Your task to perform on an android device: Where can I buy a nice beach bag? Image 0: 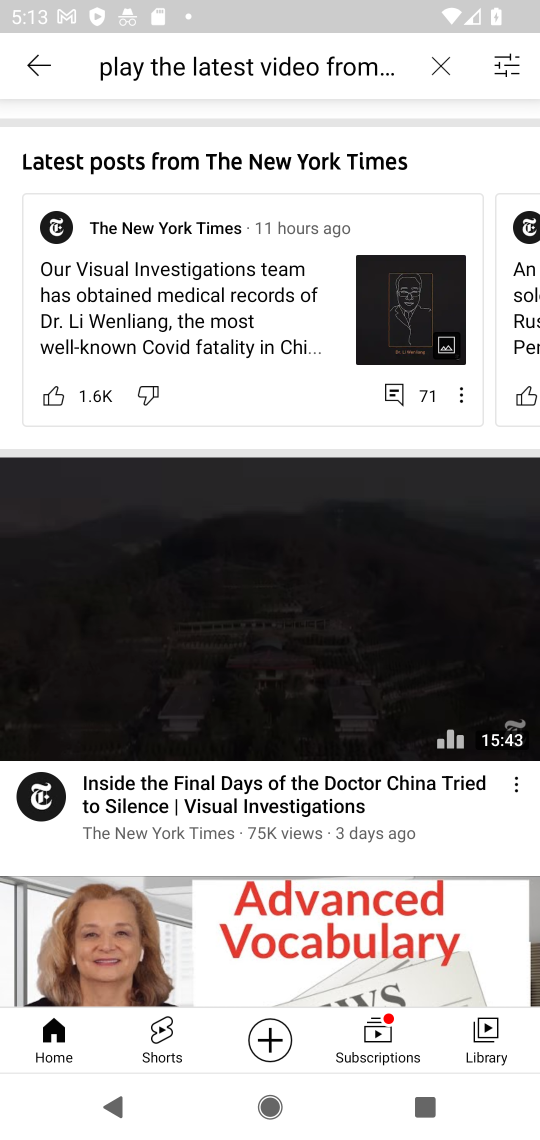
Step 0: press home button
Your task to perform on an android device: Where can I buy a nice beach bag? Image 1: 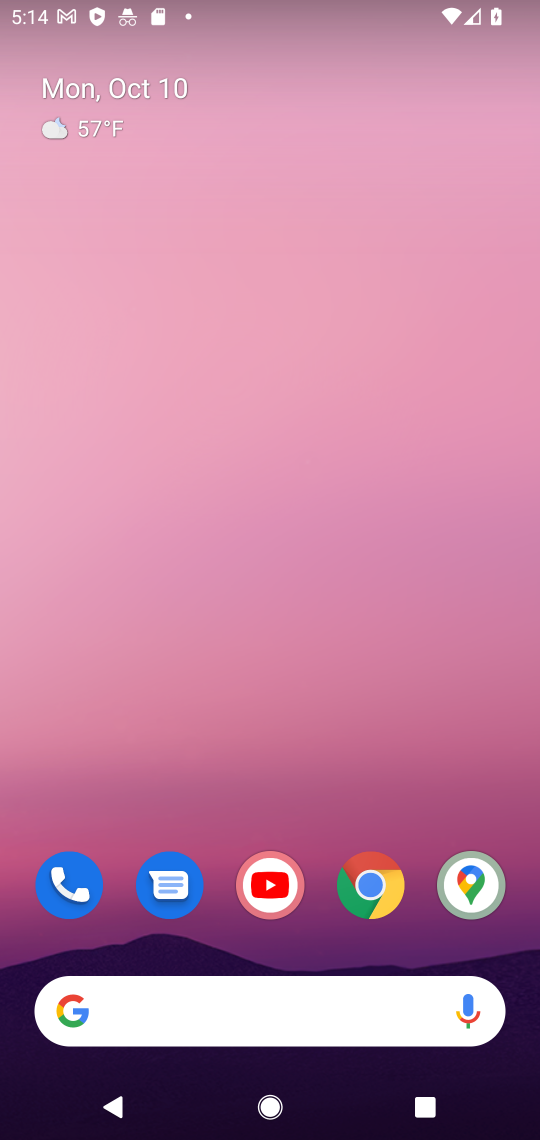
Step 1: click (250, 998)
Your task to perform on an android device: Where can I buy a nice beach bag? Image 2: 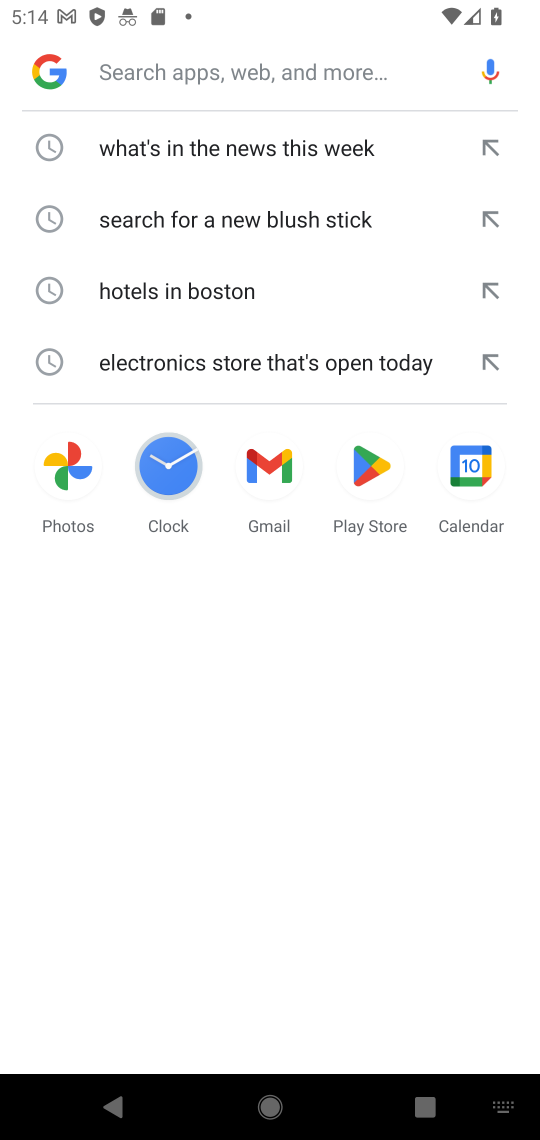
Step 2: type "Where can I buy a nice beach bag?"
Your task to perform on an android device: Where can I buy a nice beach bag? Image 3: 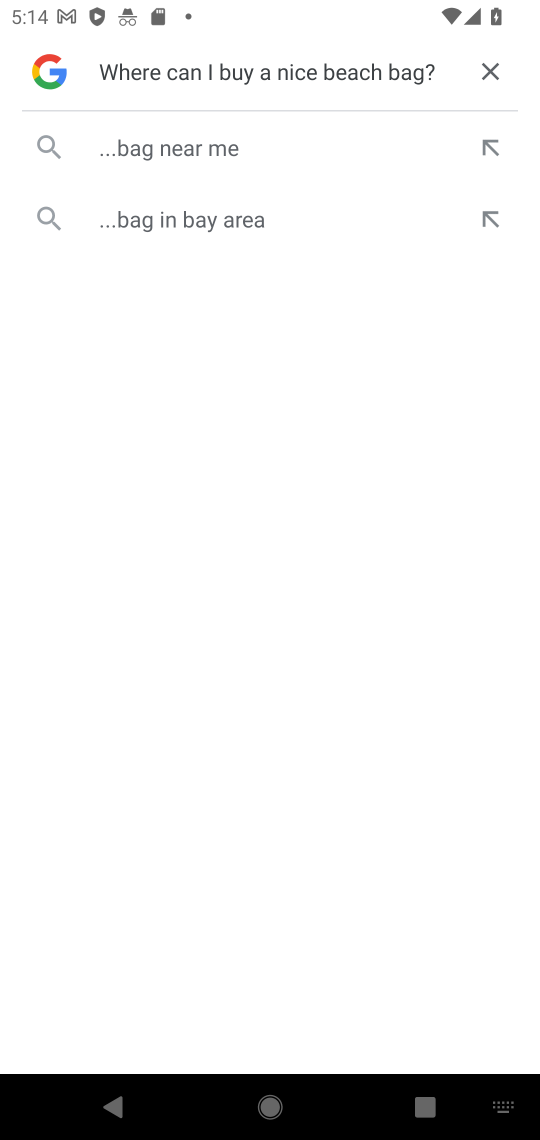
Step 3: click (147, 146)
Your task to perform on an android device: Where can I buy a nice beach bag? Image 4: 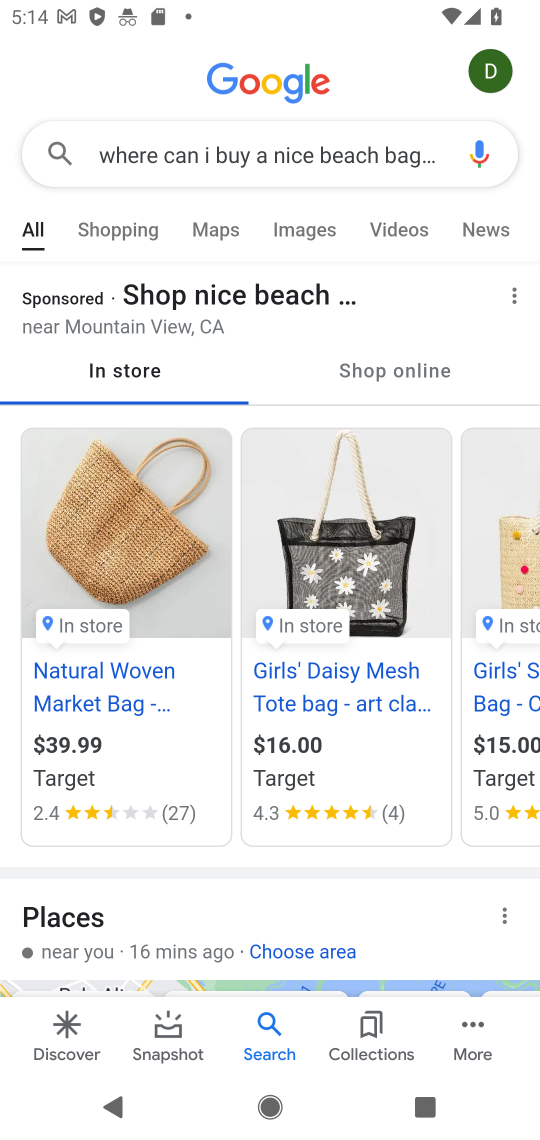
Step 4: task complete